Your task to perform on an android device: turn off picture-in-picture Image 0: 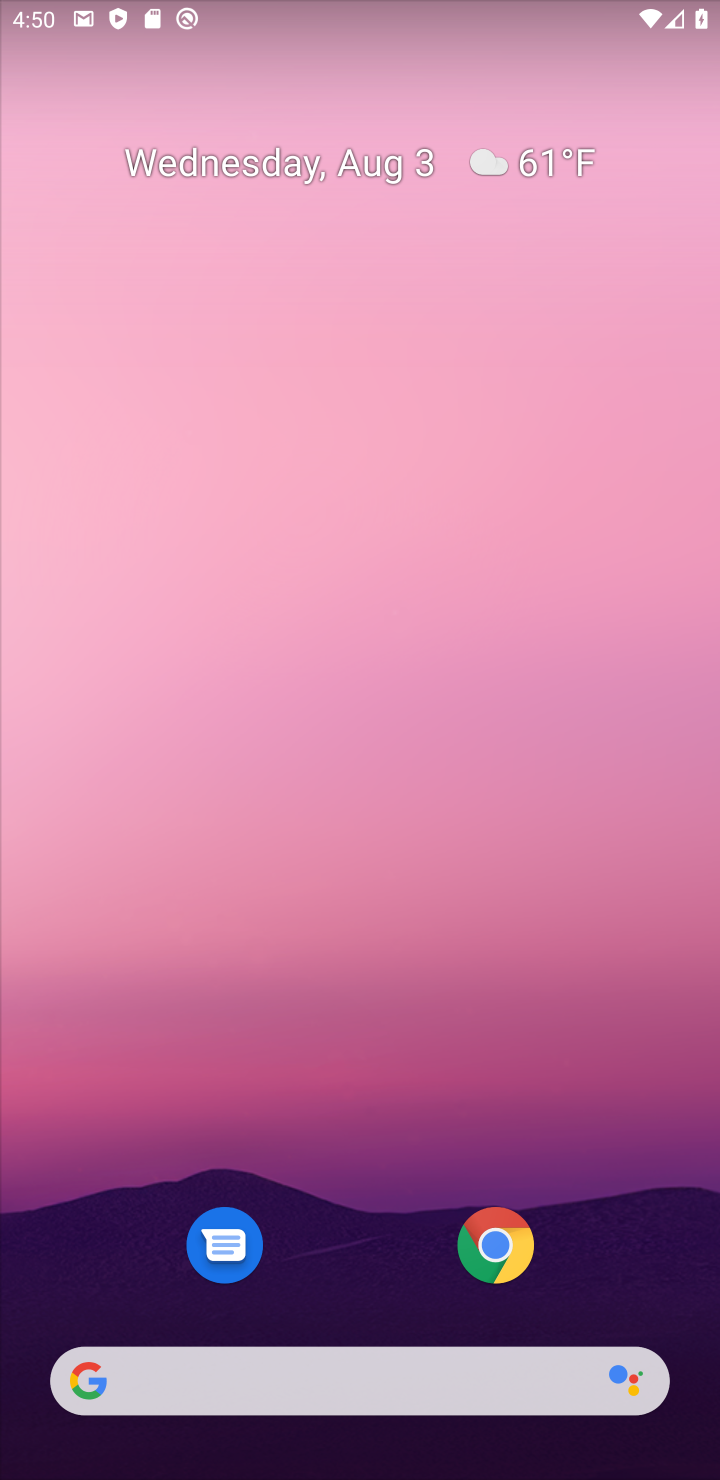
Step 0: drag from (367, 1373) to (292, 36)
Your task to perform on an android device: turn off picture-in-picture Image 1: 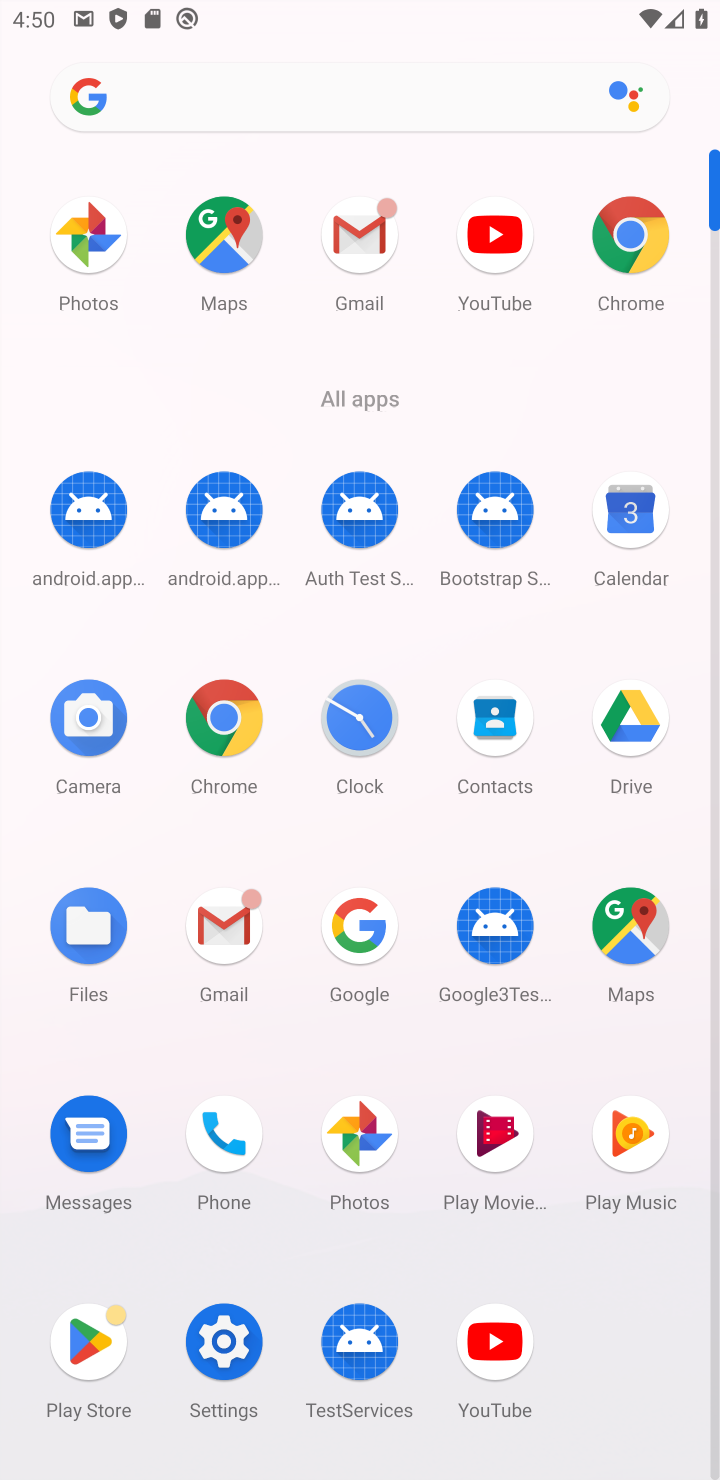
Step 1: click (627, 262)
Your task to perform on an android device: turn off picture-in-picture Image 2: 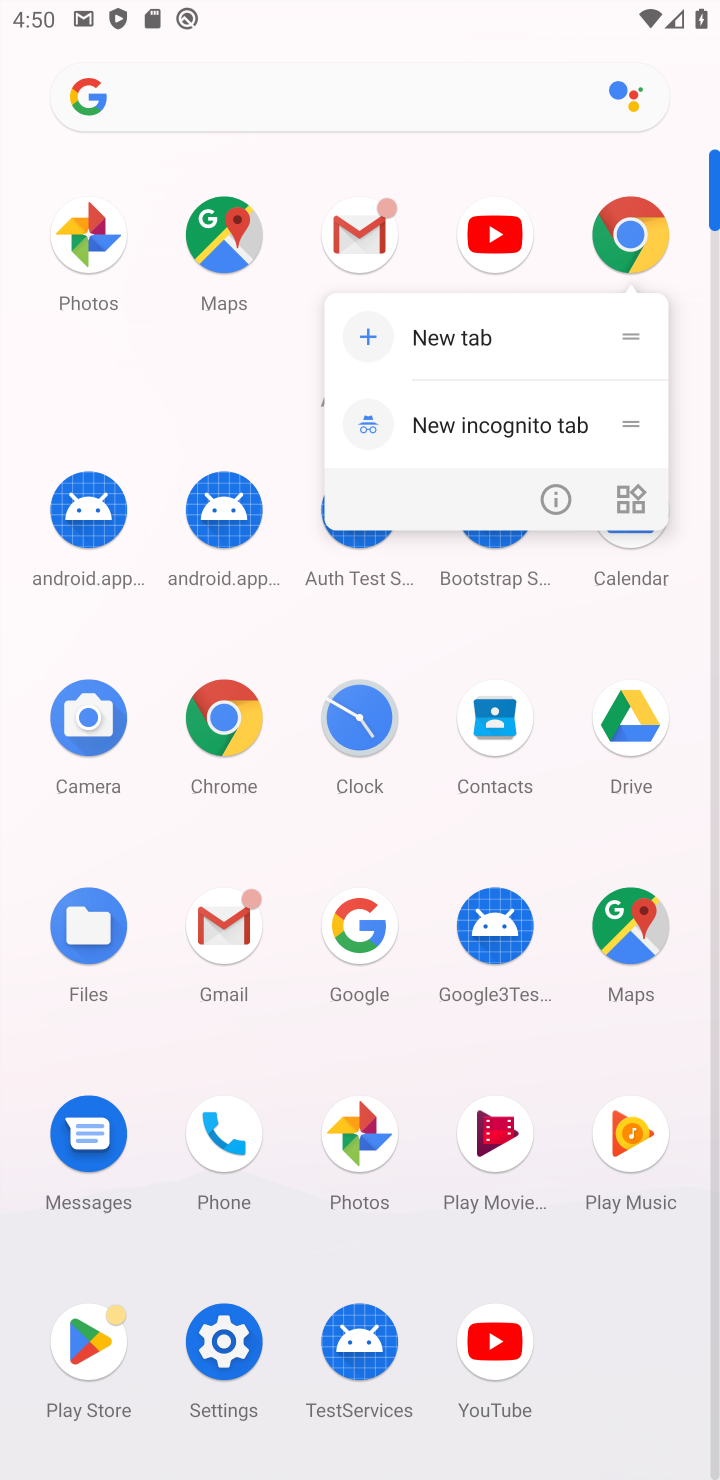
Step 2: click (540, 504)
Your task to perform on an android device: turn off picture-in-picture Image 3: 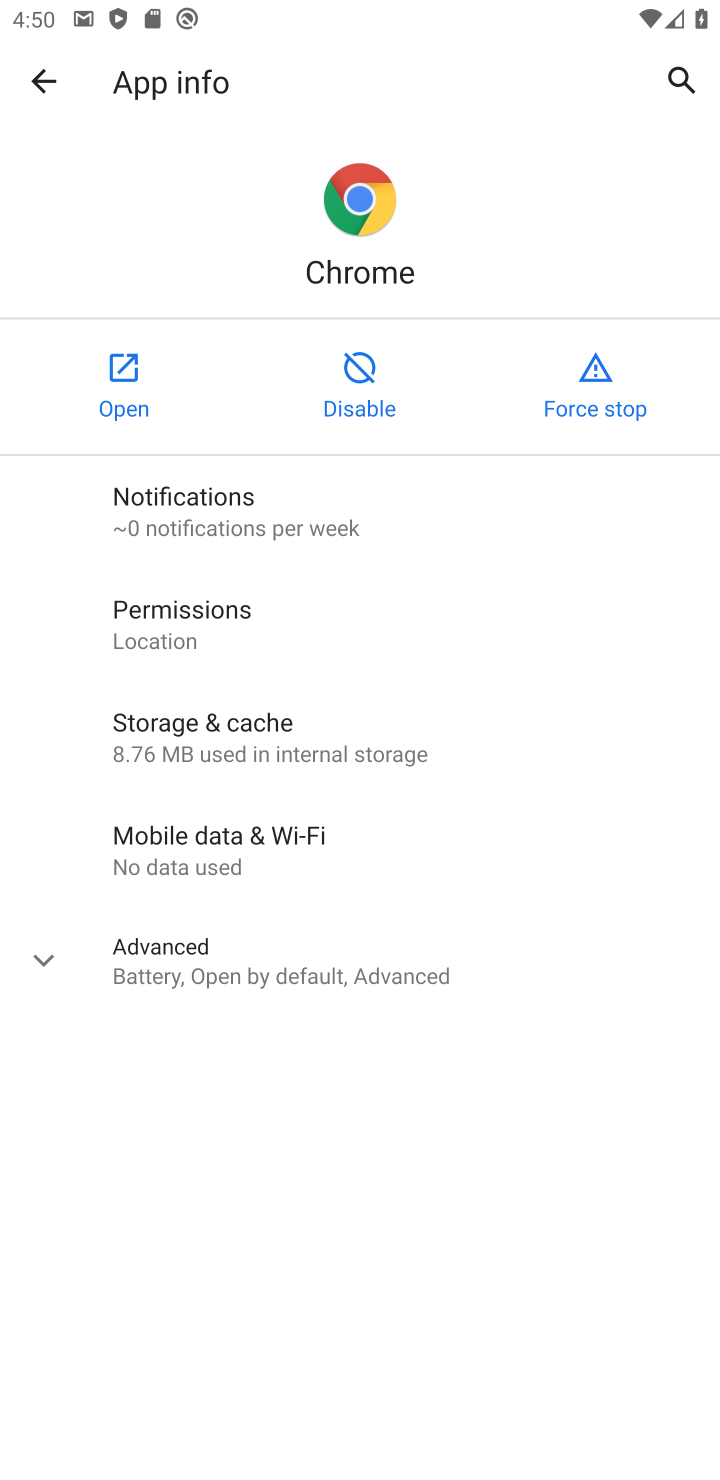
Step 3: click (221, 969)
Your task to perform on an android device: turn off picture-in-picture Image 4: 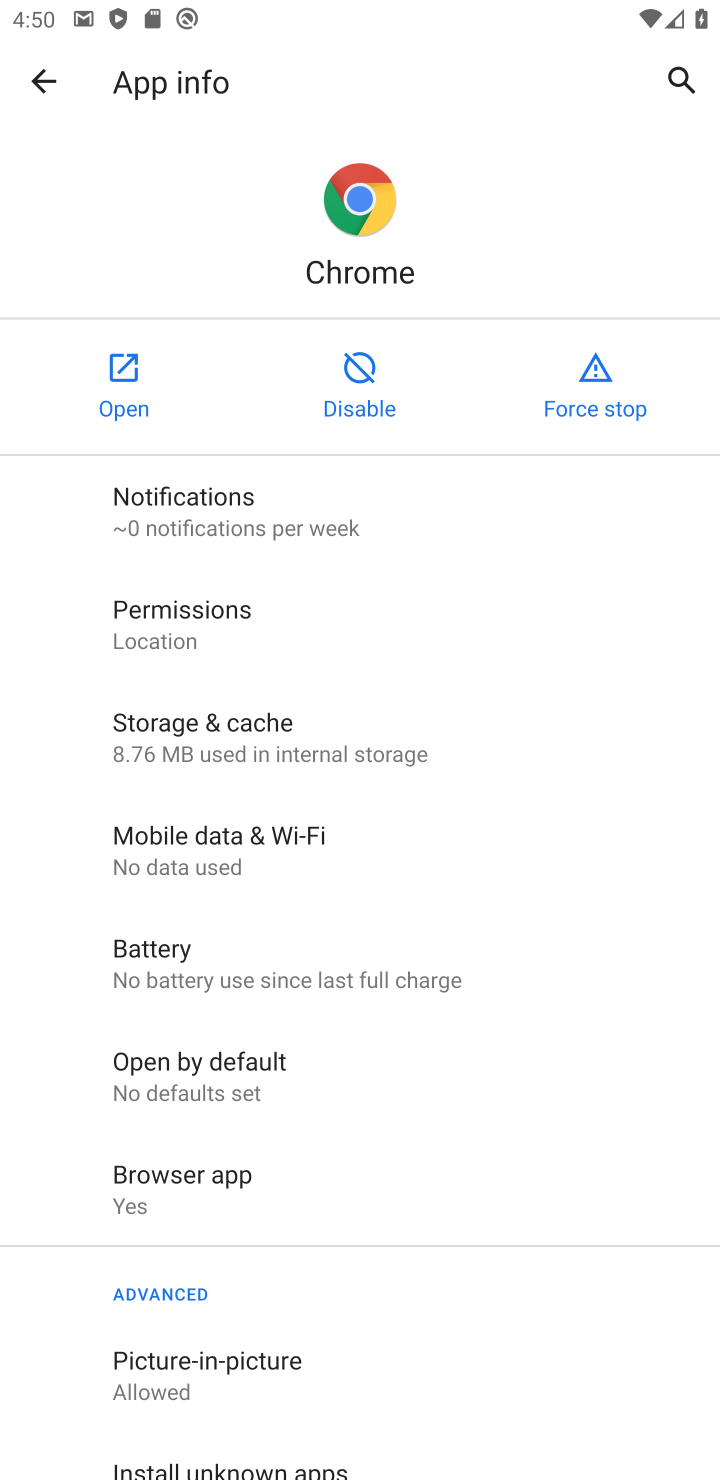
Step 4: drag from (322, 1254) to (335, 542)
Your task to perform on an android device: turn off picture-in-picture Image 5: 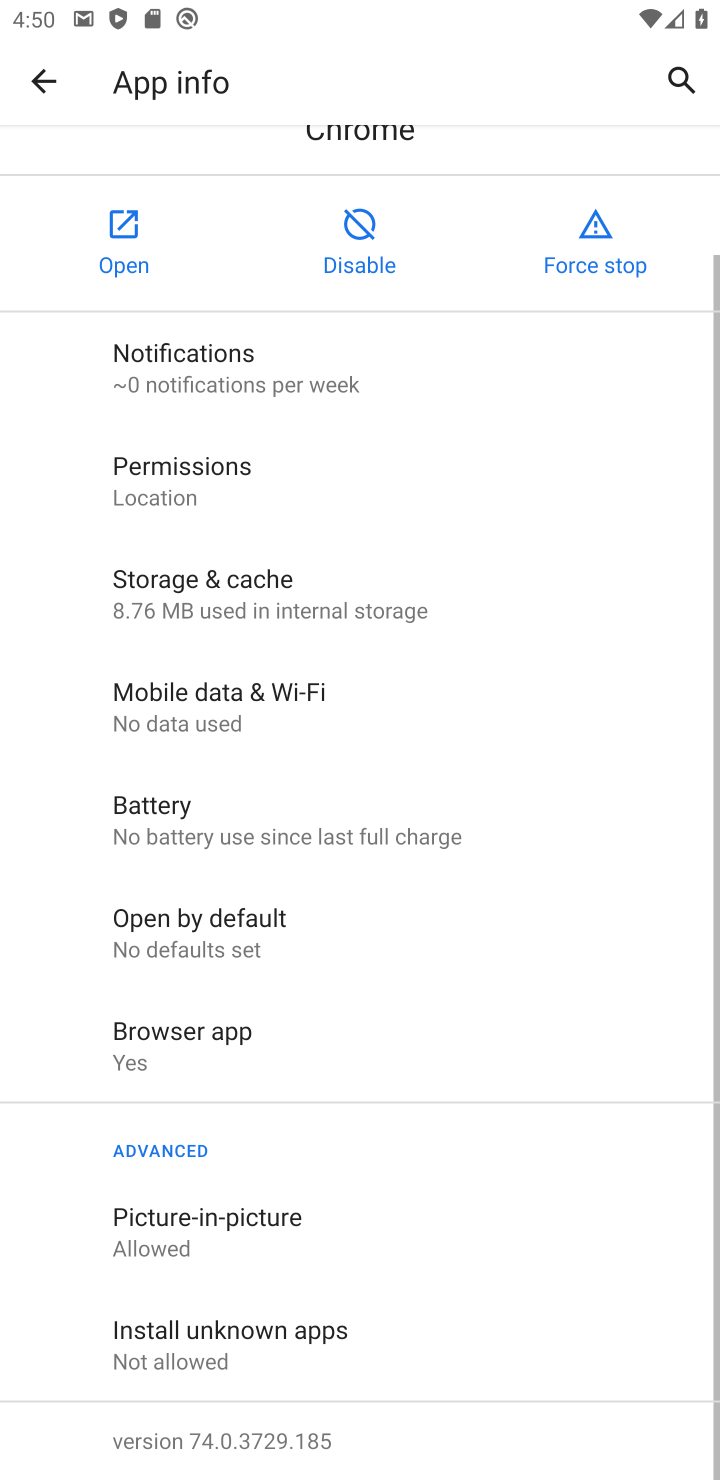
Step 5: click (240, 1227)
Your task to perform on an android device: turn off picture-in-picture Image 6: 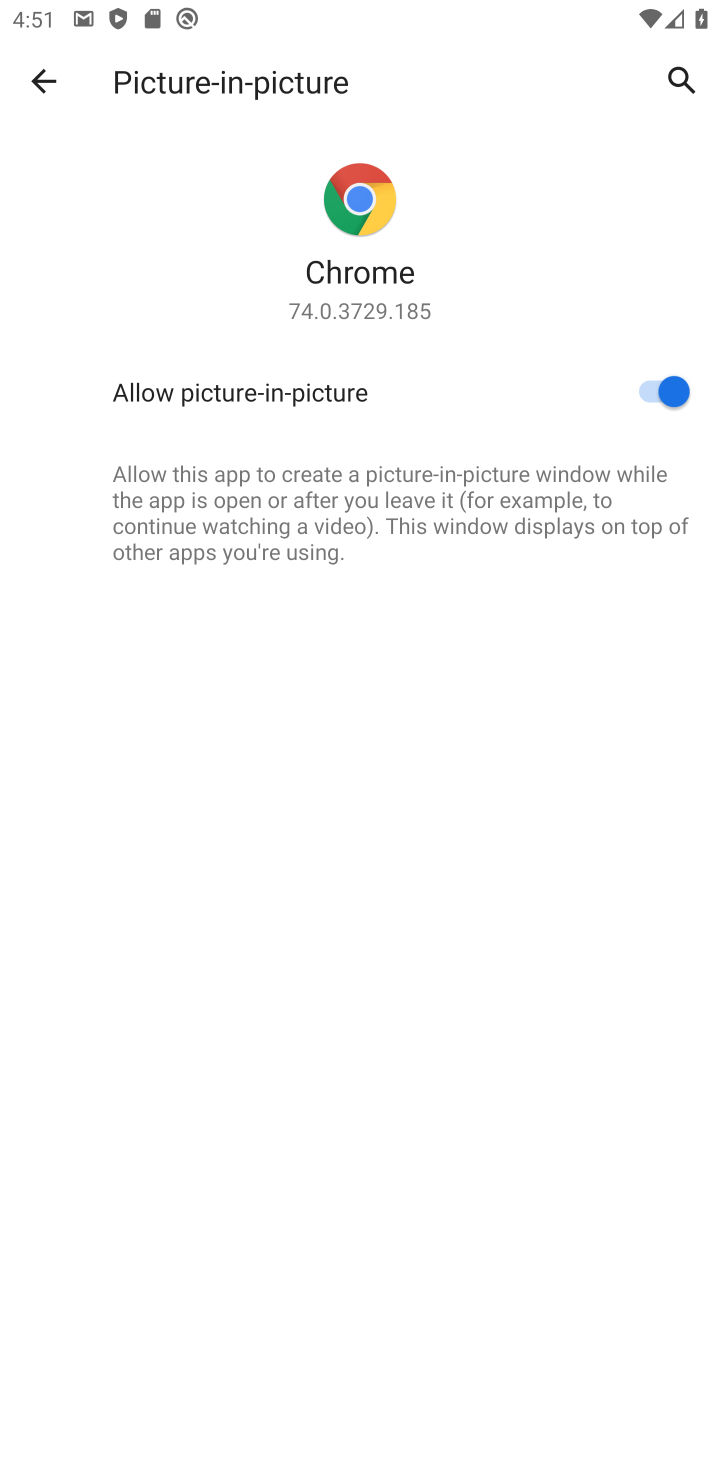
Step 6: click (682, 393)
Your task to perform on an android device: turn off picture-in-picture Image 7: 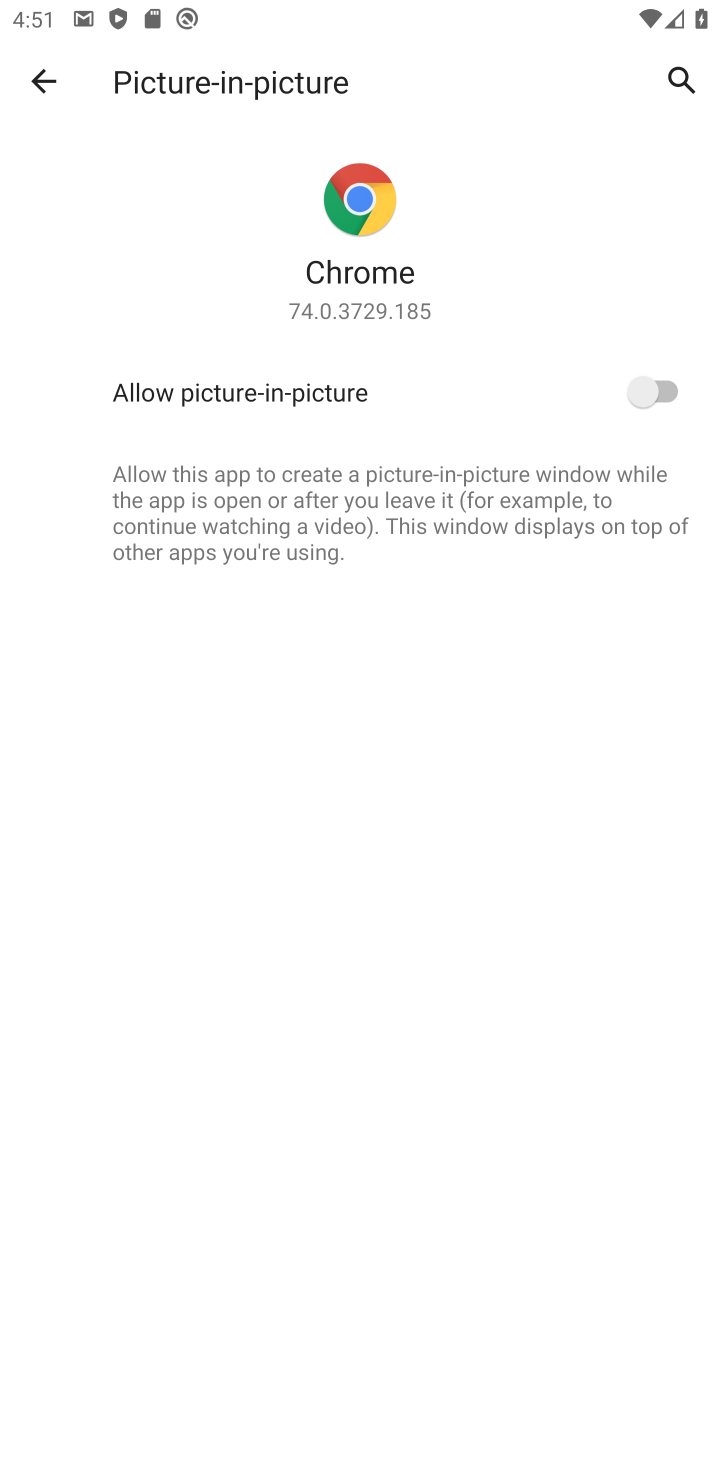
Step 7: task complete